Your task to perform on an android device: Open internet settings Image 0: 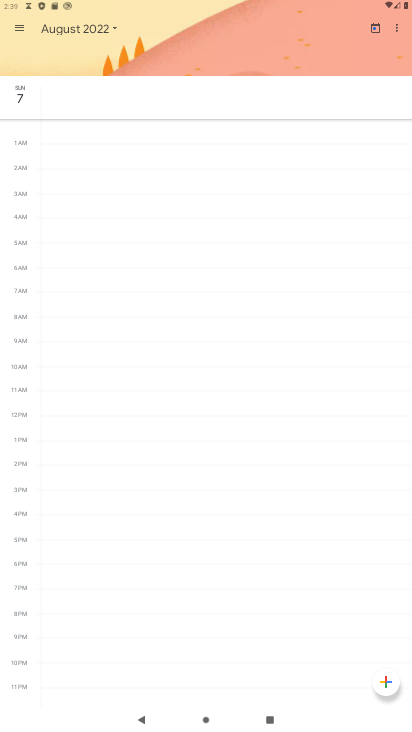
Step 0: press home button
Your task to perform on an android device: Open internet settings Image 1: 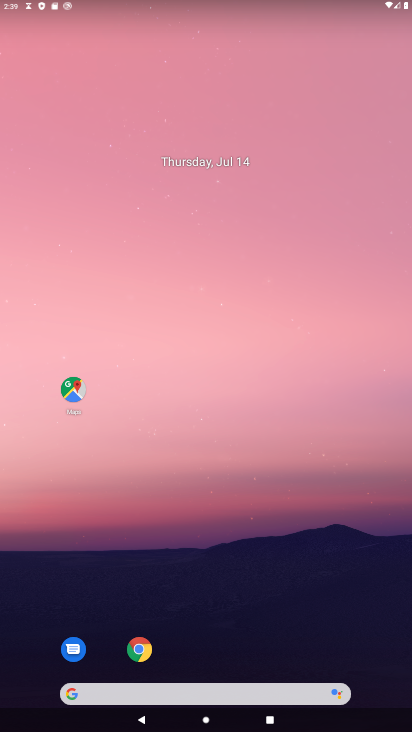
Step 1: drag from (220, 181) to (150, 2)
Your task to perform on an android device: Open internet settings Image 2: 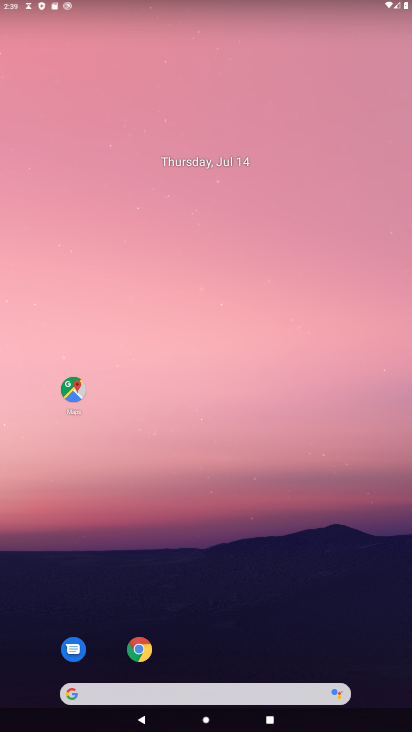
Step 2: drag from (207, 644) to (273, 4)
Your task to perform on an android device: Open internet settings Image 3: 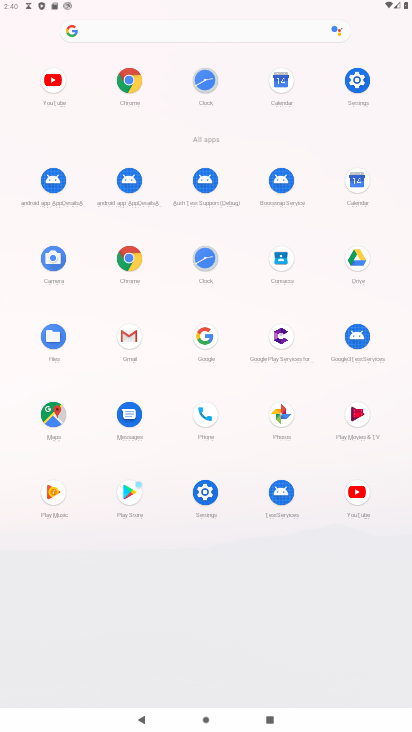
Step 3: click (211, 510)
Your task to perform on an android device: Open internet settings Image 4: 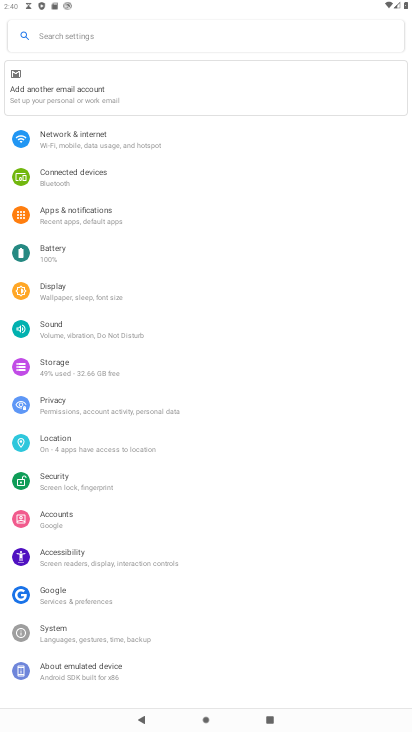
Step 4: click (96, 129)
Your task to perform on an android device: Open internet settings Image 5: 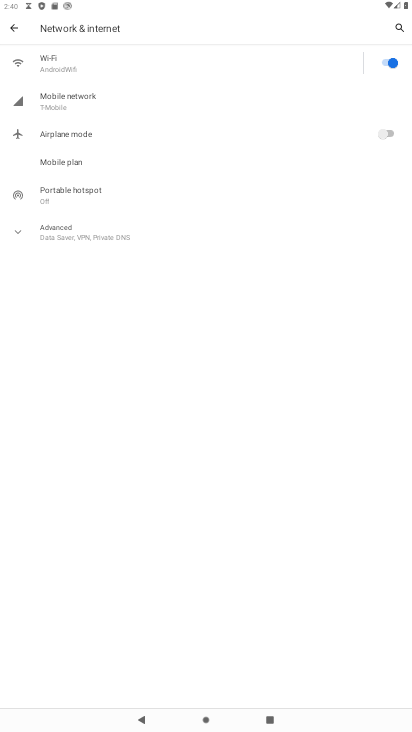
Step 5: click (80, 87)
Your task to perform on an android device: Open internet settings Image 6: 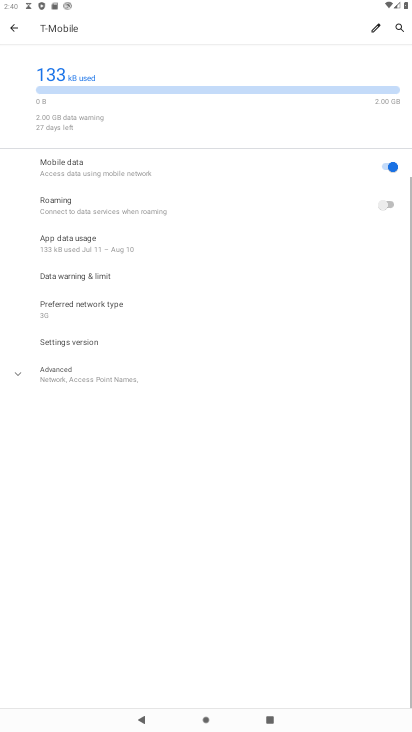
Step 6: task complete